Your task to perform on an android device: Open the map Image 0: 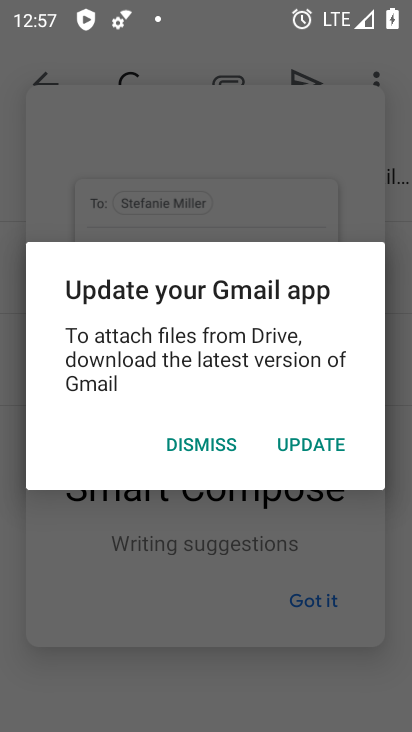
Step 0: press home button
Your task to perform on an android device: Open the map Image 1: 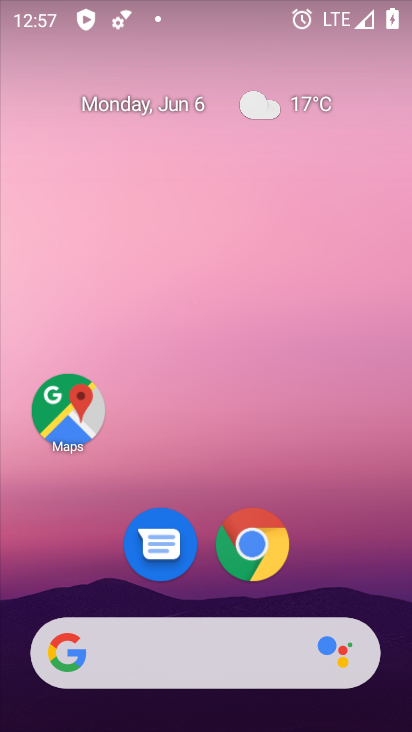
Step 1: click (59, 396)
Your task to perform on an android device: Open the map Image 2: 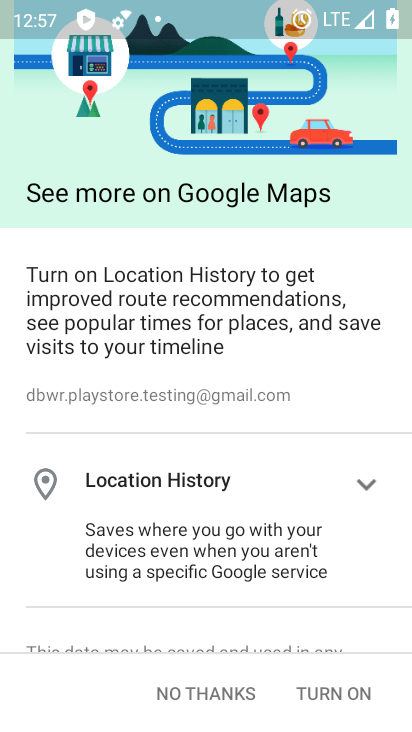
Step 2: click (223, 691)
Your task to perform on an android device: Open the map Image 3: 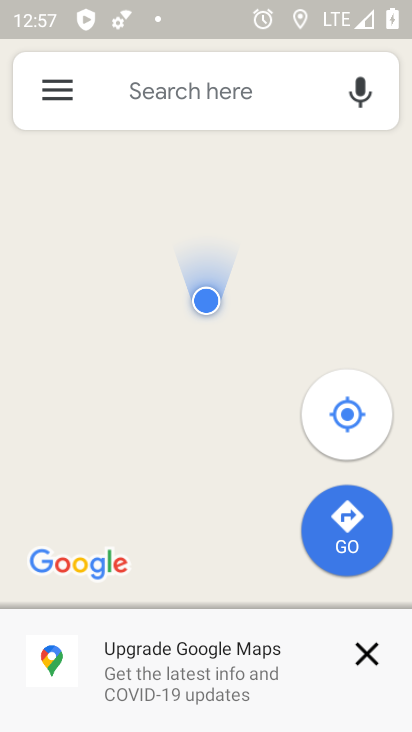
Step 3: task complete